Your task to perform on an android device: open app "Speedtest by Ookla" (install if not already installed) Image 0: 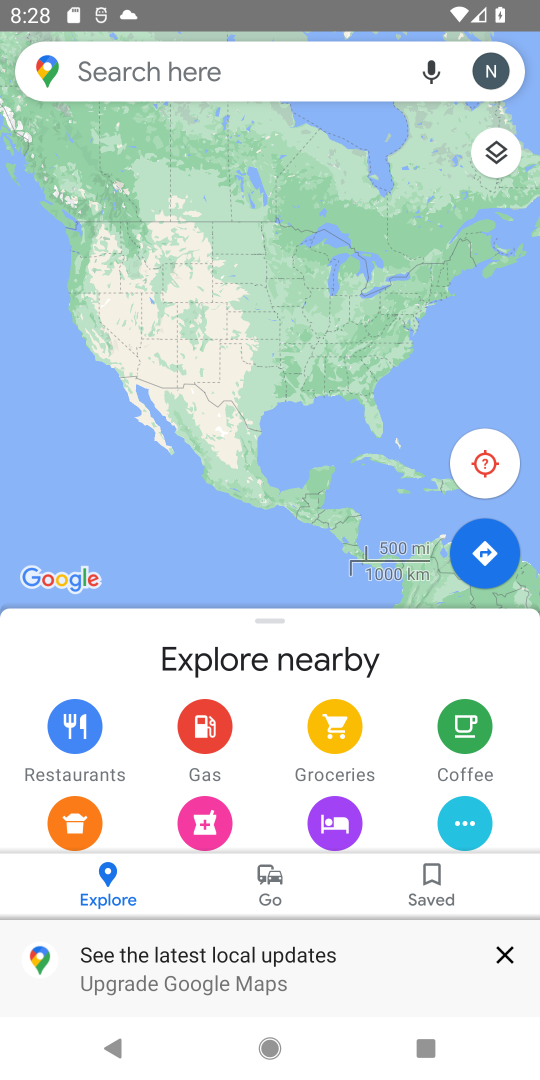
Step 0: press home button
Your task to perform on an android device: open app "Speedtest by Ookla" (install if not already installed) Image 1: 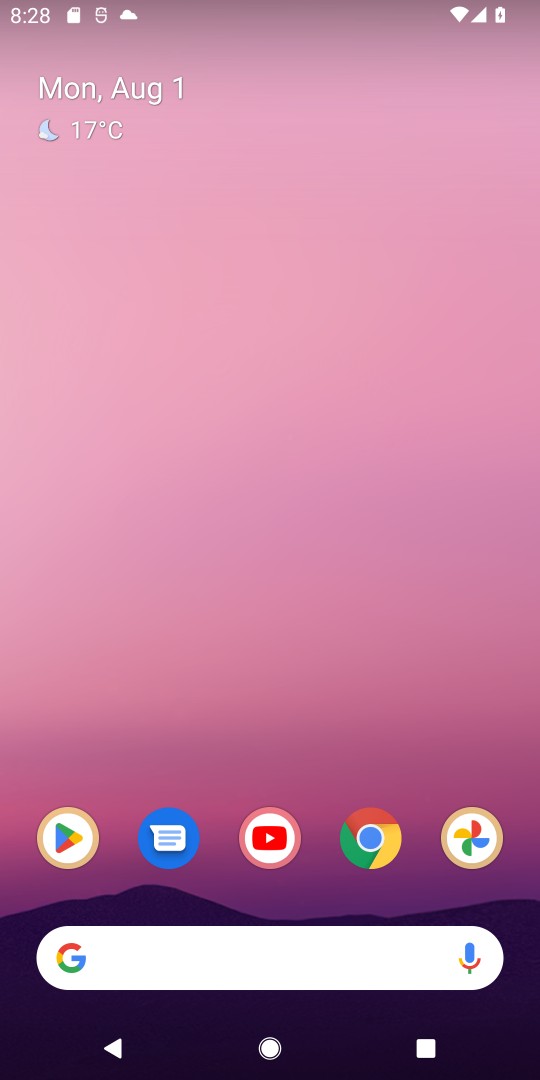
Step 1: click (82, 845)
Your task to perform on an android device: open app "Speedtest by Ookla" (install if not already installed) Image 2: 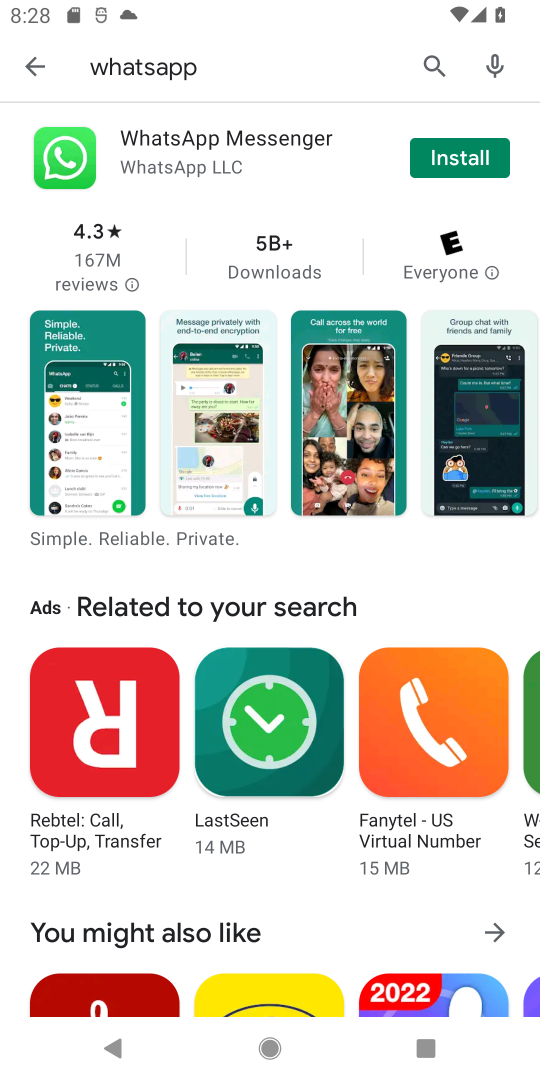
Step 2: click (442, 88)
Your task to perform on an android device: open app "Speedtest by Ookla" (install if not already installed) Image 3: 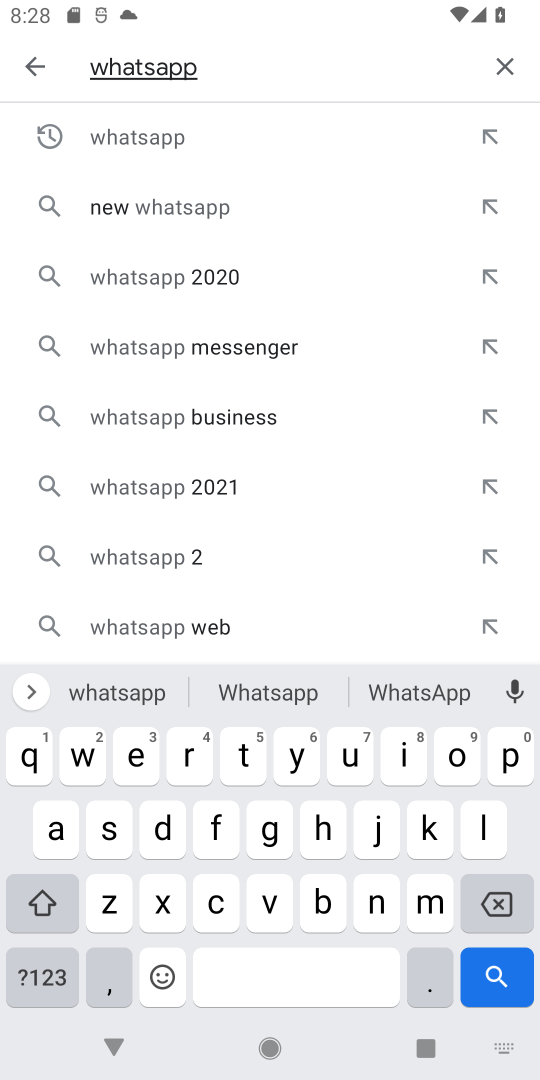
Step 3: click (505, 71)
Your task to perform on an android device: open app "Speedtest by Ookla" (install if not already installed) Image 4: 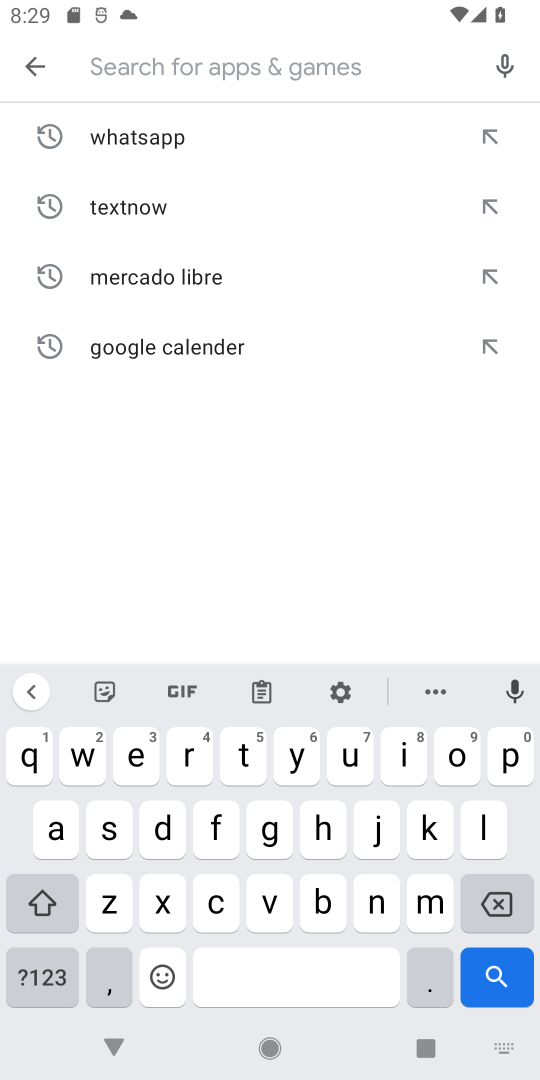
Step 4: click (104, 840)
Your task to perform on an android device: open app "Speedtest by Ookla" (install if not already installed) Image 5: 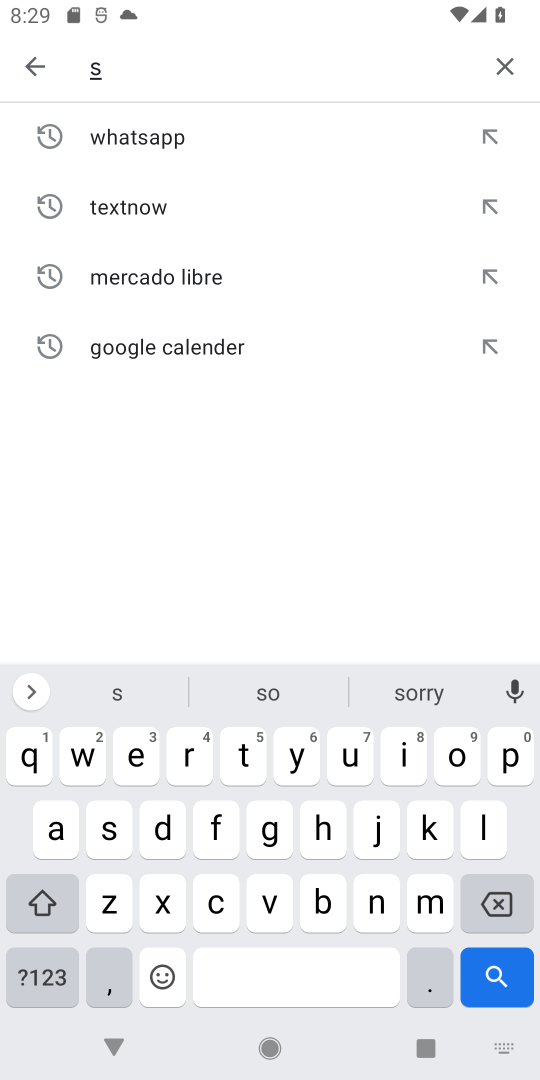
Step 5: click (500, 762)
Your task to perform on an android device: open app "Speedtest by Ookla" (install if not already installed) Image 6: 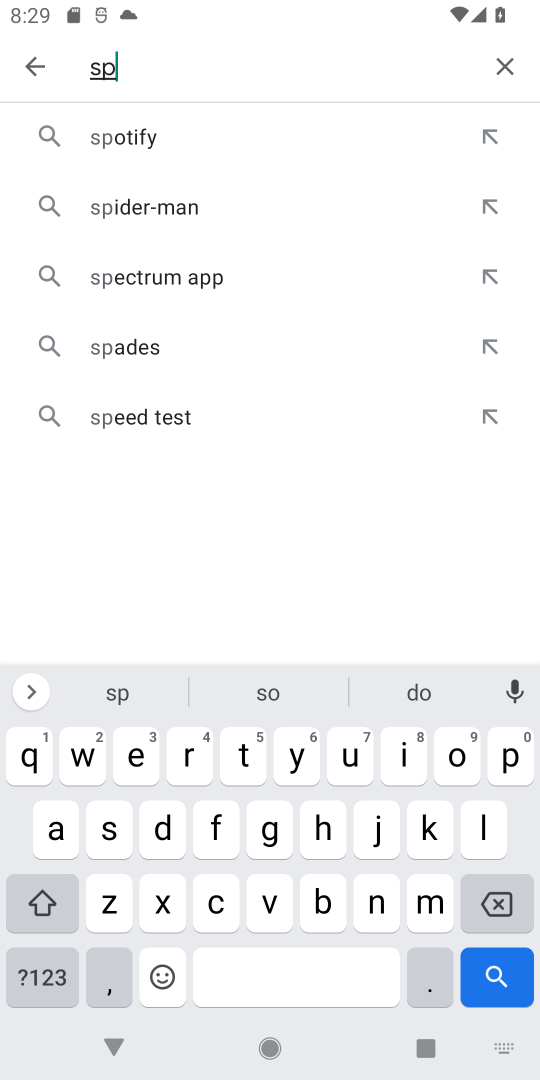
Step 6: click (131, 762)
Your task to perform on an android device: open app "Speedtest by Ookla" (install if not already installed) Image 7: 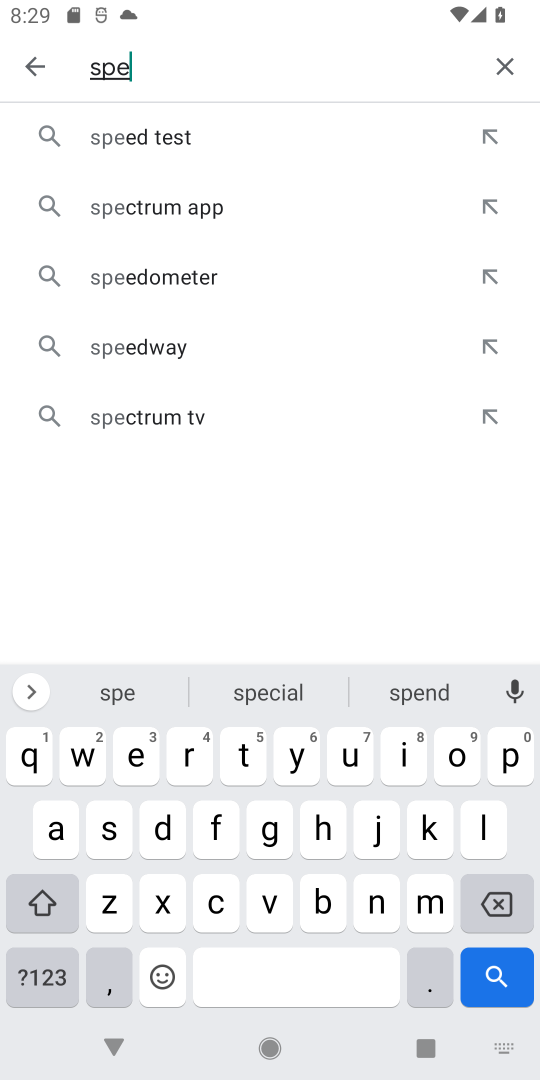
Step 7: click (205, 134)
Your task to perform on an android device: open app "Speedtest by Ookla" (install if not already installed) Image 8: 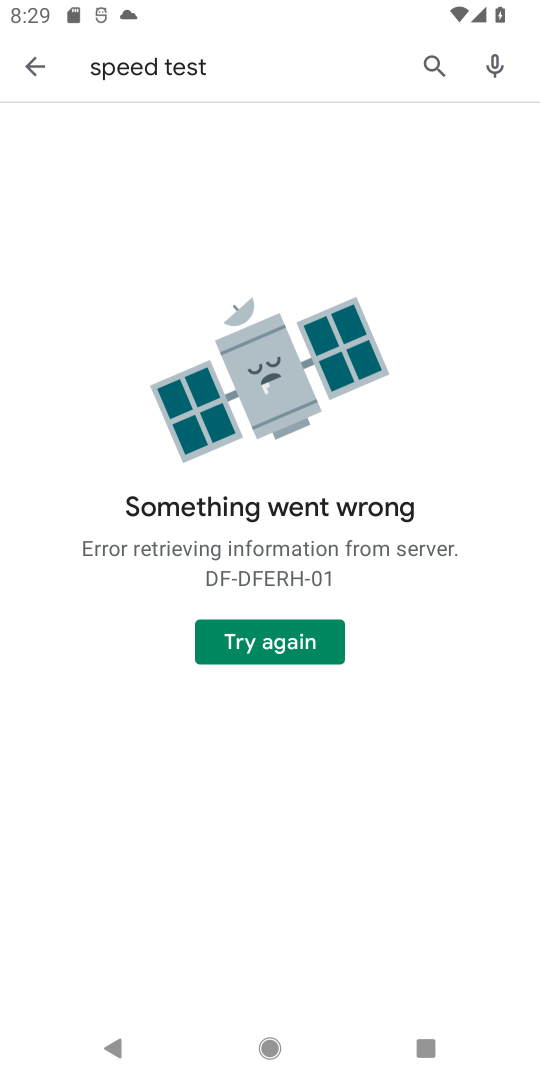
Step 8: click (288, 639)
Your task to perform on an android device: open app "Speedtest by Ookla" (install if not already installed) Image 9: 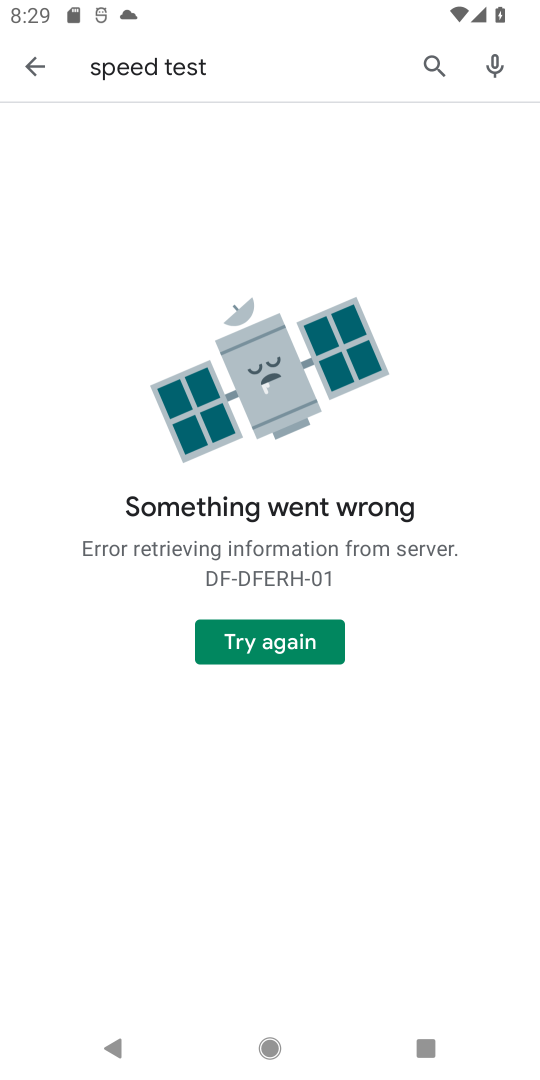
Step 9: click (288, 639)
Your task to perform on an android device: open app "Speedtest by Ookla" (install if not already installed) Image 10: 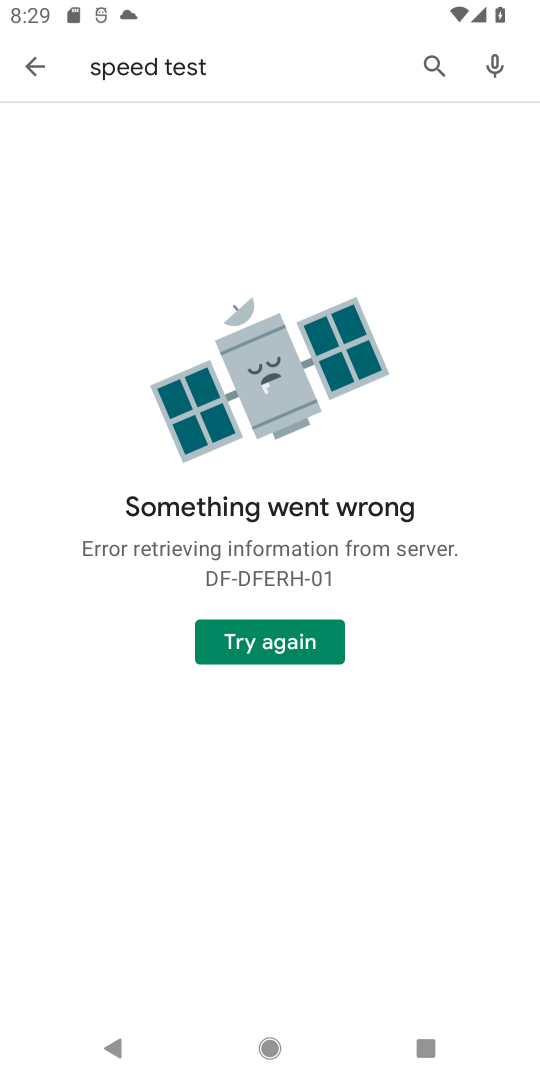
Step 10: click (288, 639)
Your task to perform on an android device: open app "Speedtest by Ookla" (install if not already installed) Image 11: 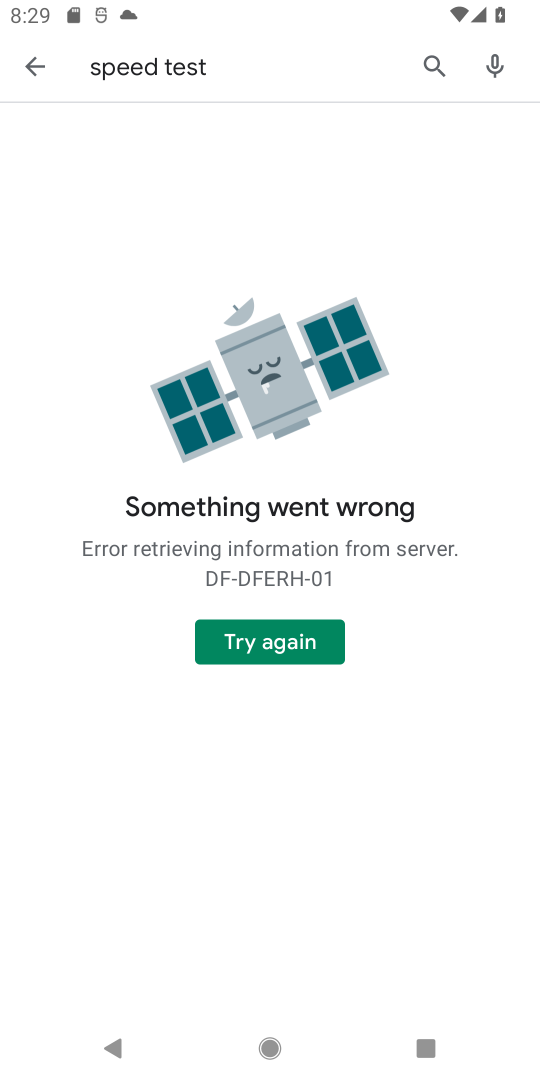
Step 11: click (301, 624)
Your task to perform on an android device: open app "Speedtest by Ookla" (install if not already installed) Image 12: 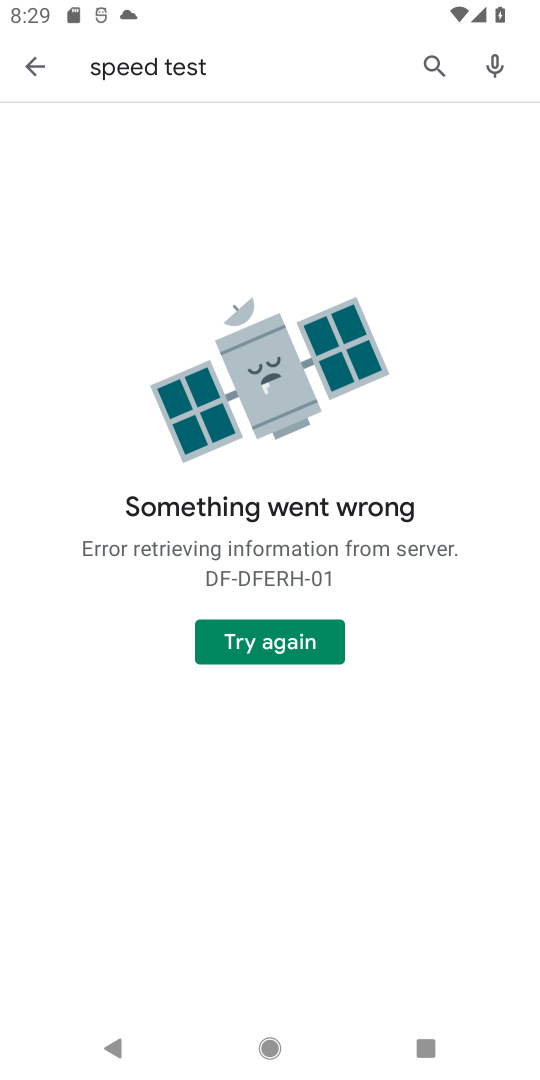
Step 12: click (297, 650)
Your task to perform on an android device: open app "Speedtest by Ookla" (install if not already installed) Image 13: 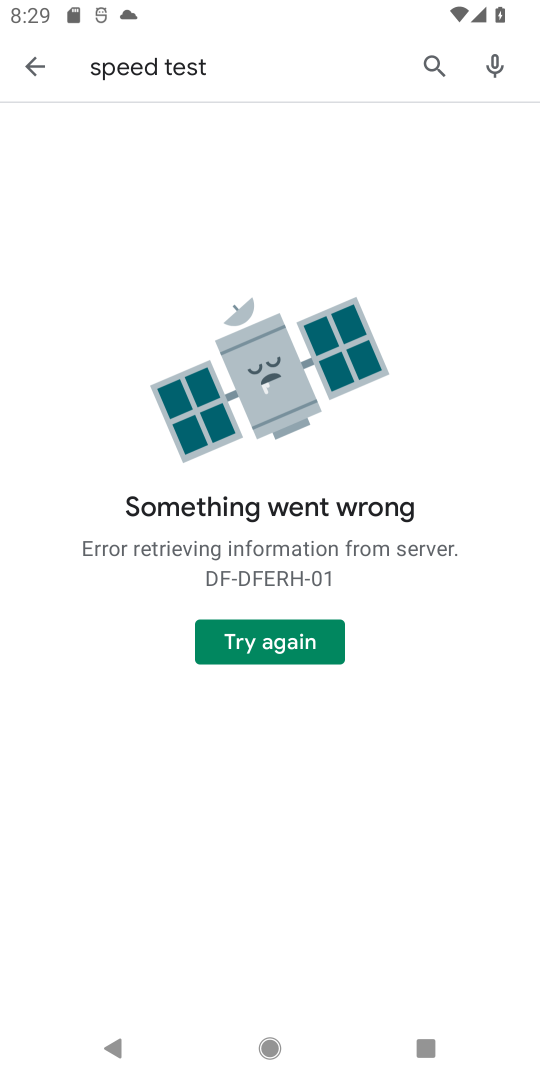
Step 13: click (430, 60)
Your task to perform on an android device: open app "Speedtest by Ookla" (install if not already installed) Image 14: 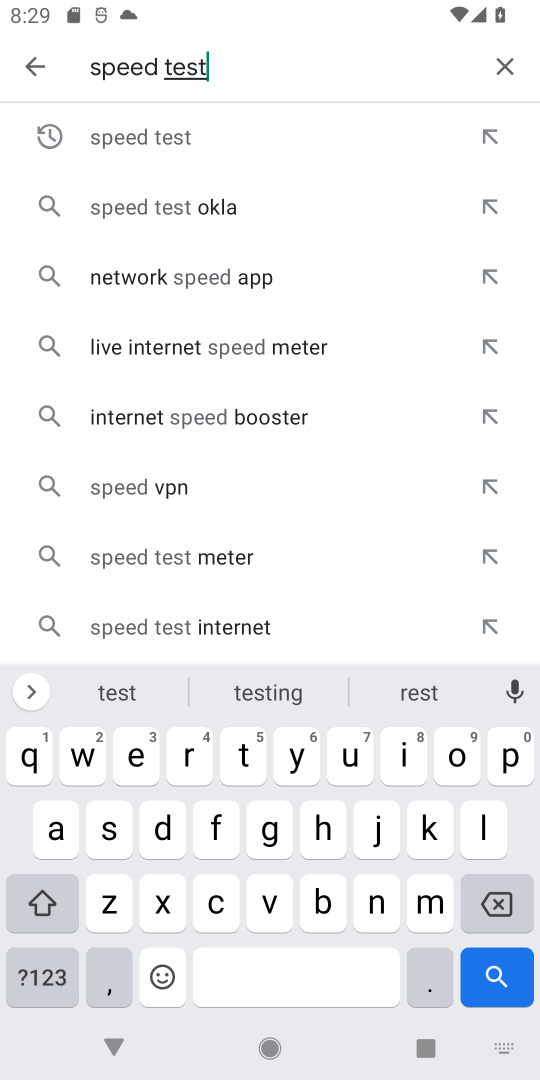
Step 14: click (201, 210)
Your task to perform on an android device: open app "Speedtest by Ookla" (install if not already installed) Image 15: 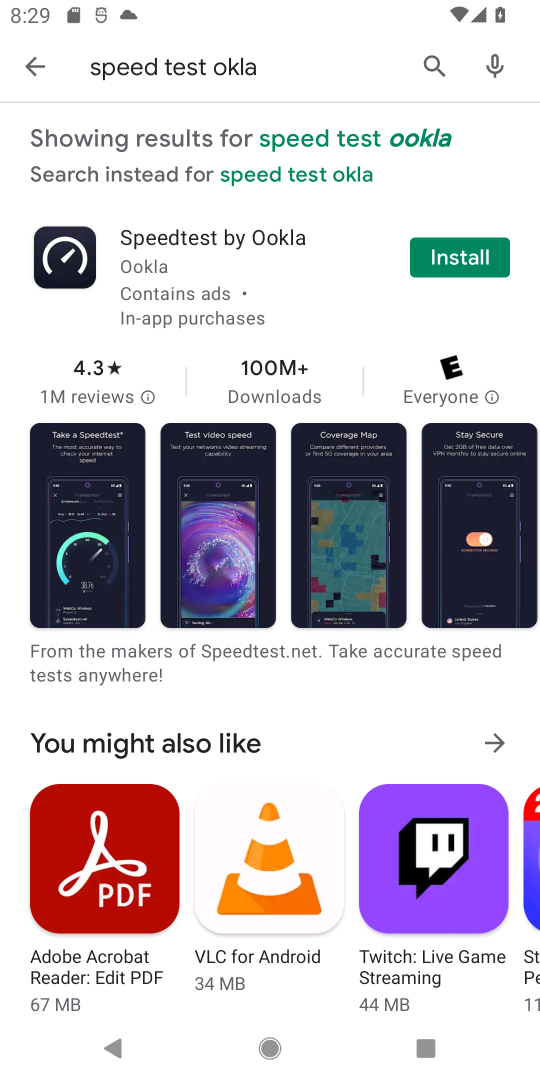
Step 15: click (447, 255)
Your task to perform on an android device: open app "Speedtest by Ookla" (install if not already installed) Image 16: 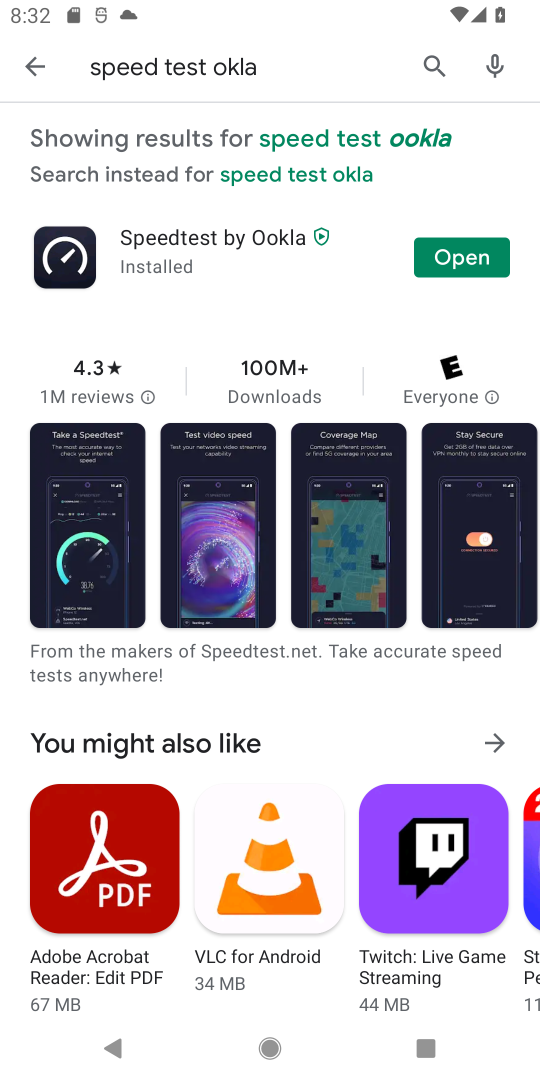
Step 16: click (468, 257)
Your task to perform on an android device: open app "Speedtest by Ookla" (install if not already installed) Image 17: 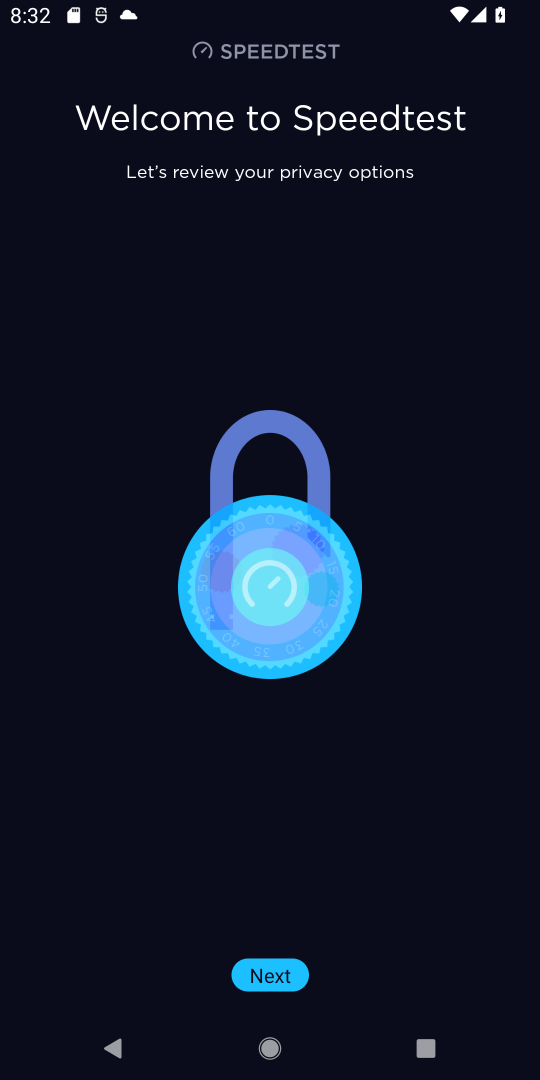
Step 17: task complete